Your task to perform on an android device: turn off picture-in-picture Image 0: 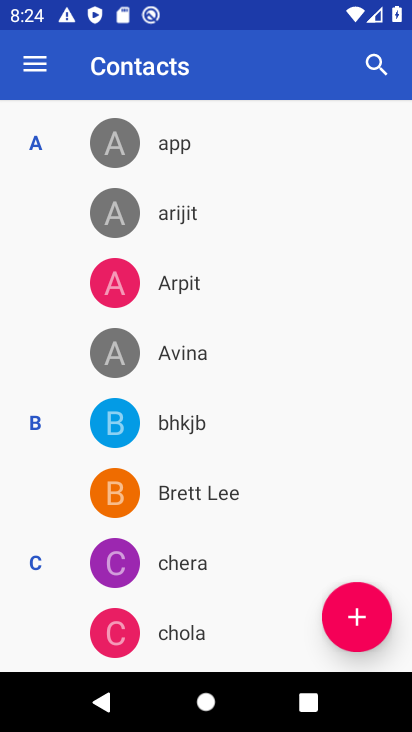
Step 0: press home button
Your task to perform on an android device: turn off picture-in-picture Image 1: 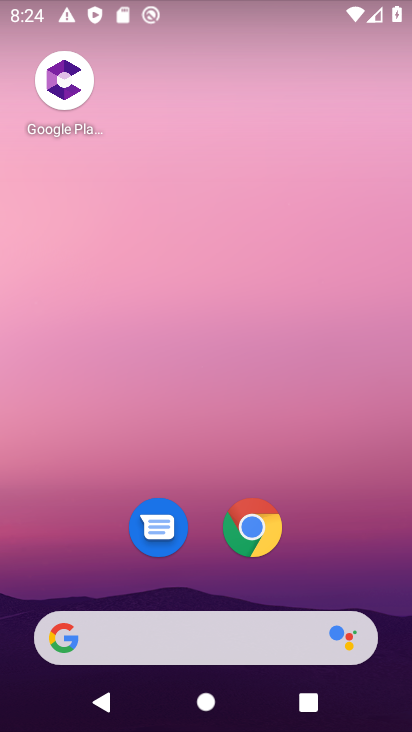
Step 1: click (251, 520)
Your task to perform on an android device: turn off picture-in-picture Image 2: 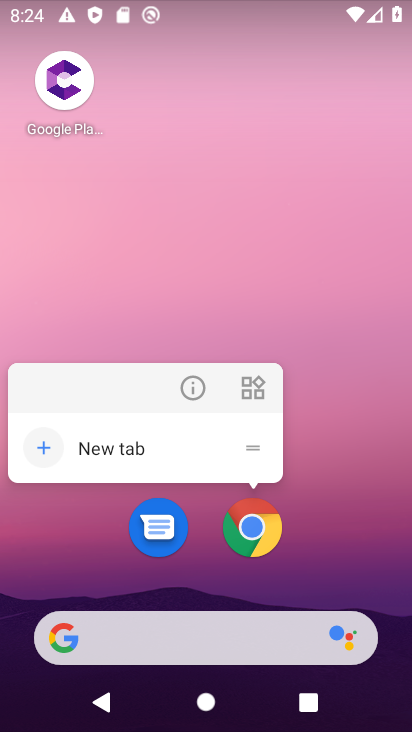
Step 2: click (192, 400)
Your task to perform on an android device: turn off picture-in-picture Image 3: 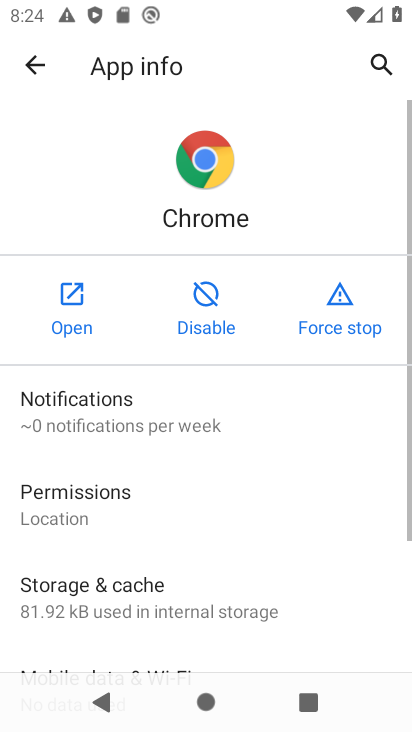
Step 3: drag from (155, 608) to (194, 327)
Your task to perform on an android device: turn off picture-in-picture Image 4: 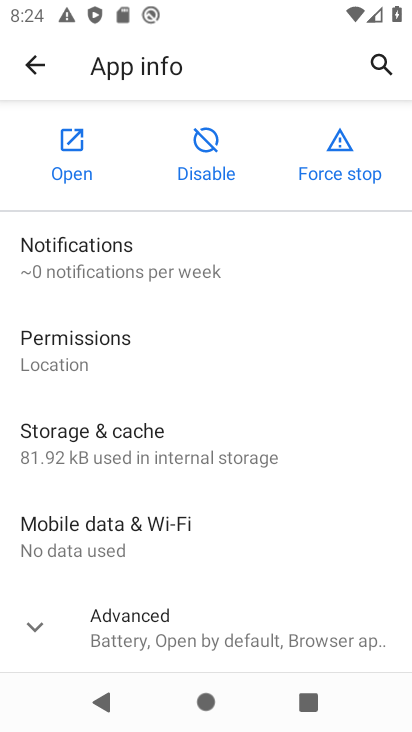
Step 4: click (171, 621)
Your task to perform on an android device: turn off picture-in-picture Image 5: 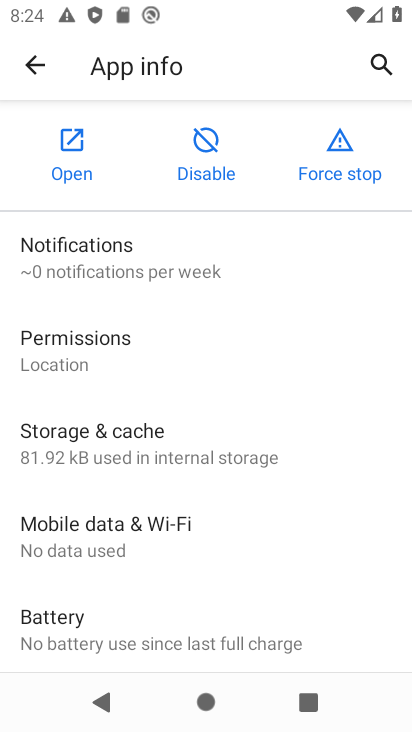
Step 5: drag from (160, 632) to (203, 201)
Your task to perform on an android device: turn off picture-in-picture Image 6: 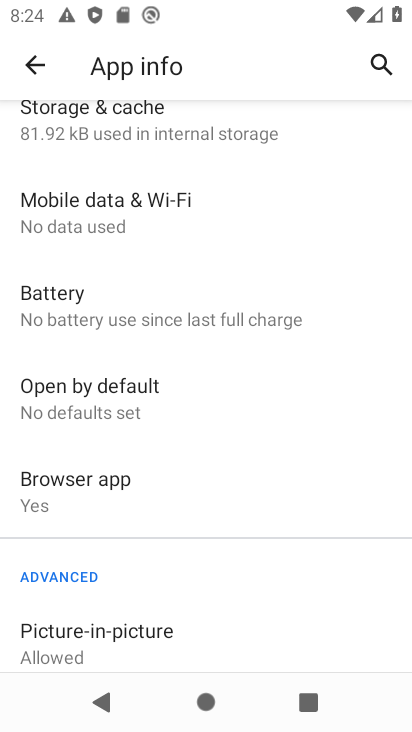
Step 6: click (105, 640)
Your task to perform on an android device: turn off picture-in-picture Image 7: 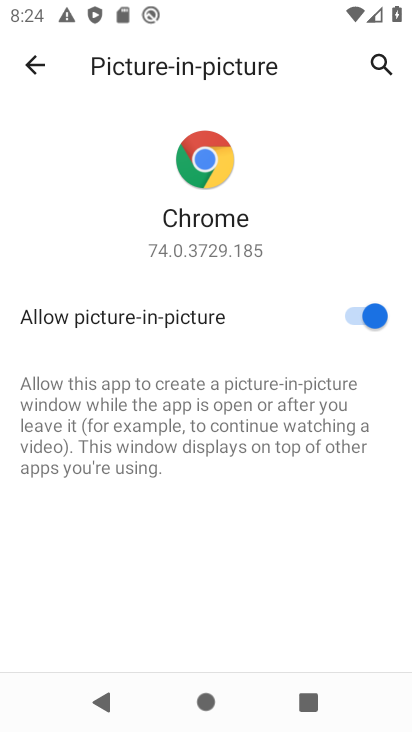
Step 7: click (376, 323)
Your task to perform on an android device: turn off picture-in-picture Image 8: 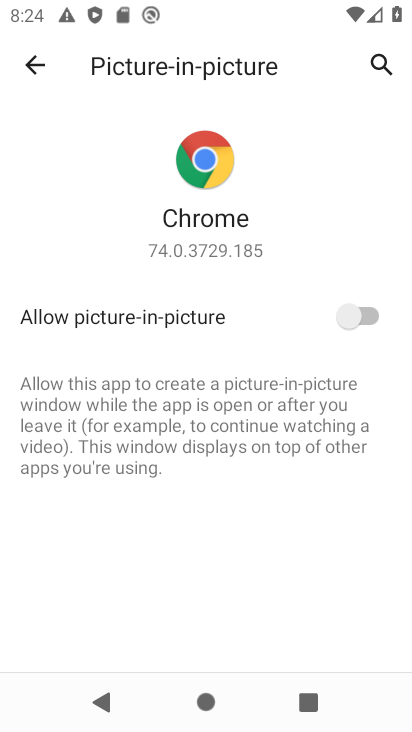
Step 8: task complete